Your task to perform on an android device: Set the phone to "Do not disturb". Image 0: 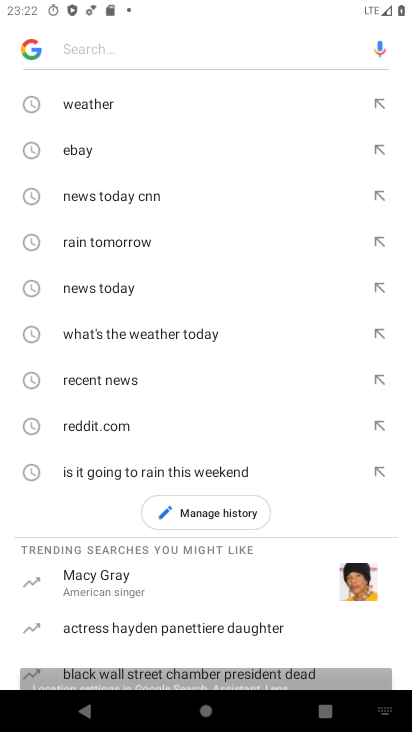
Step 0: press home button
Your task to perform on an android device: Set the phone to "Do not disturb". Image 1: 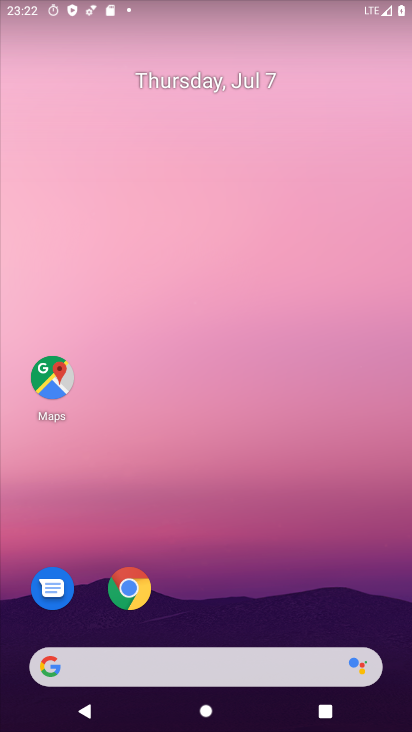
Step 1: drag from (260, 0) to (310, 473)
Your task to perform on an android device: Set the phone to "Do not disturb". Image 2: 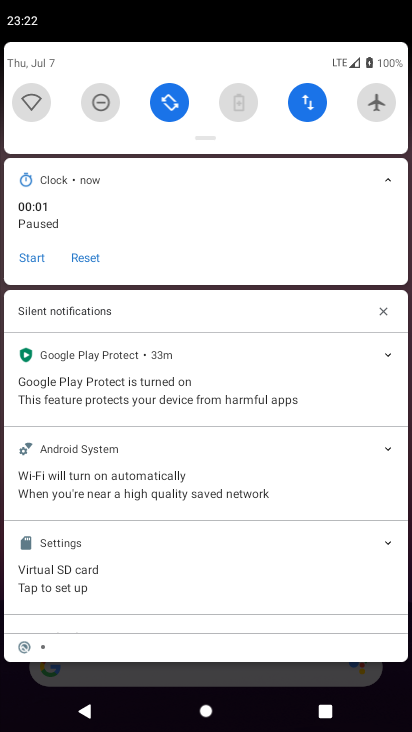
Step 2: click (101, 98)
Your task to perform on an android device: Set the phone to "Do not disturb". Image 3: 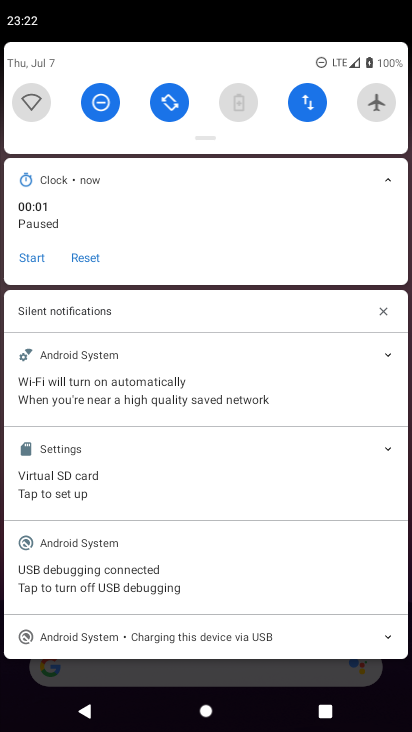
Step 3: task complete